Your task to perform on an android device: empty trash in google photos Image 0: 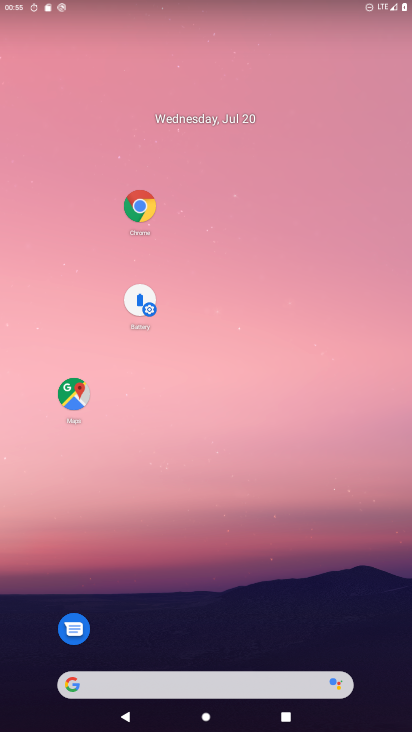
Step 0: drag from (209, 607) to (363, 185)
Your task to perform on an android device: empty trash in google photos Image 1: 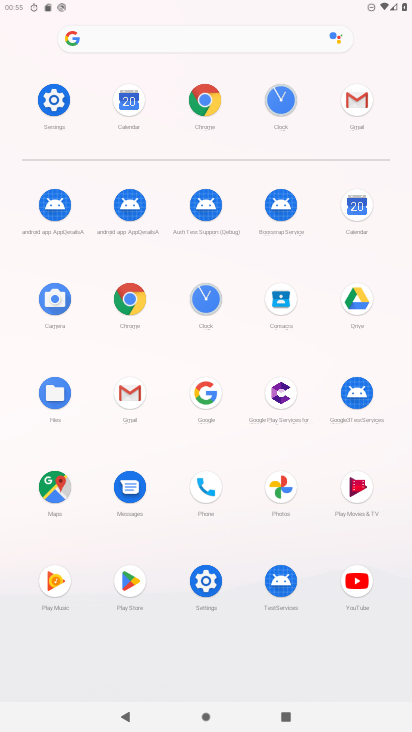
Step 1: click (280, 484)
Your task to perform on an android device: empty trash in google photos Image 2: 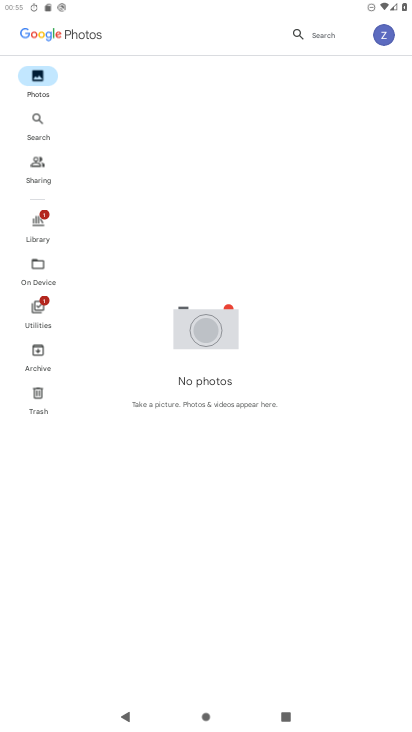
Step 2: drag from (257, 501) to (232, 343)
Your task to perform on an android device: empty trash in google photos Image 3: 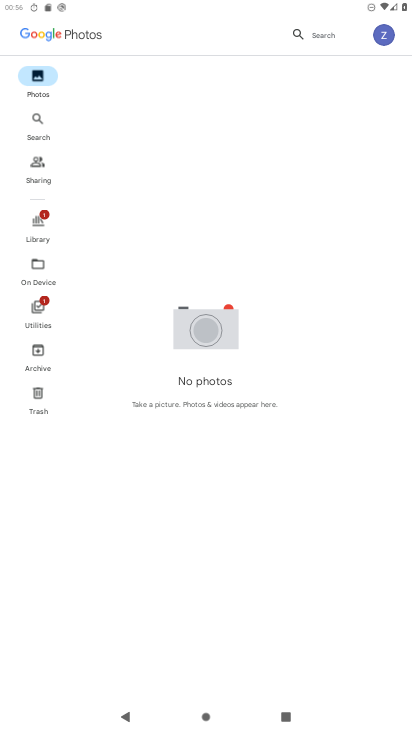
Step 3: click (34, 402)
Your task to perform on an android device: empty trash in google photos Image 4: 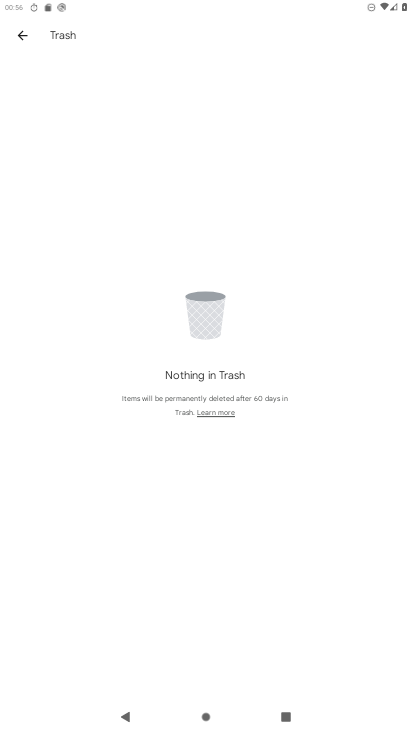
Step 4: task complete